Your task to perform on an android device: turn off location Image 0: 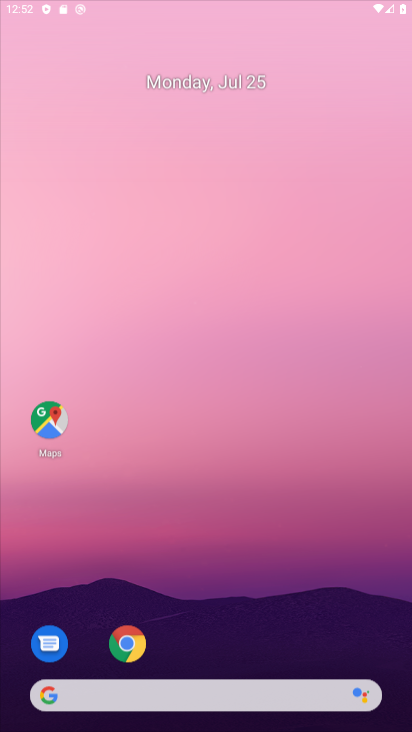
Step 0: drag from (218, 91) to (167, 2)
Your task to perform on an android device: turn off location Image 1: 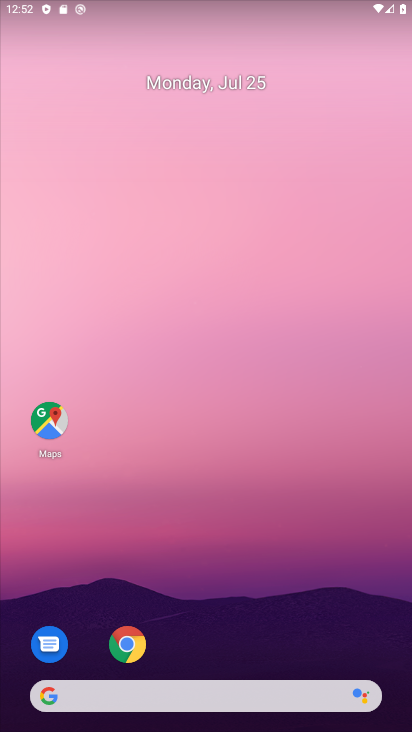
Step 1: drag from (283, 617) to (232, 16)
Your task to perform on an android device: turn off location Image 2: 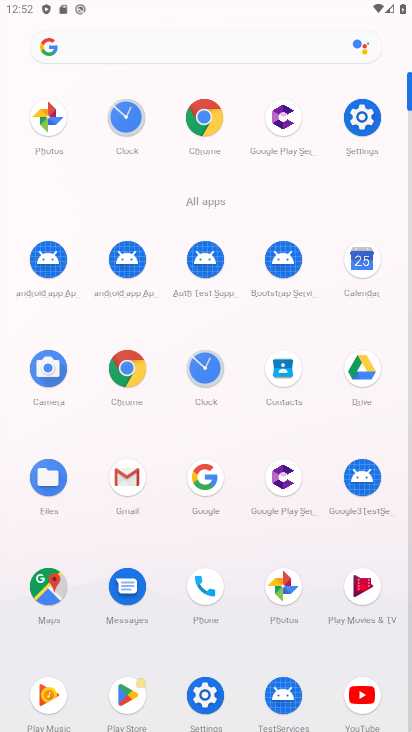
Step 2: click (358, 112)
Your task to perform on an android device: turn off location Image 3: 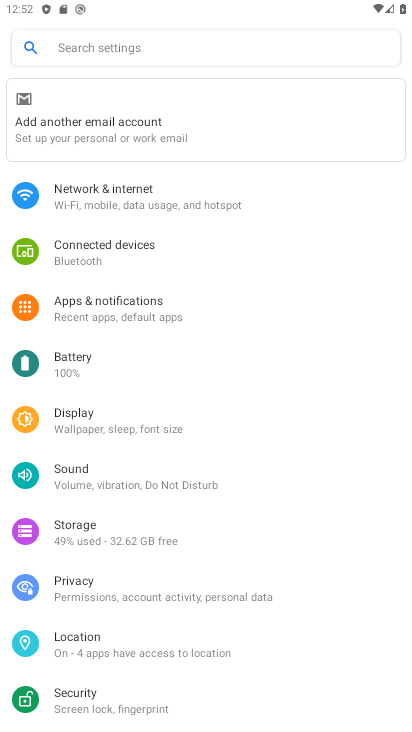
Step 3: click (110, 644)
Your task to perform on an android device: turn off location Image 4: 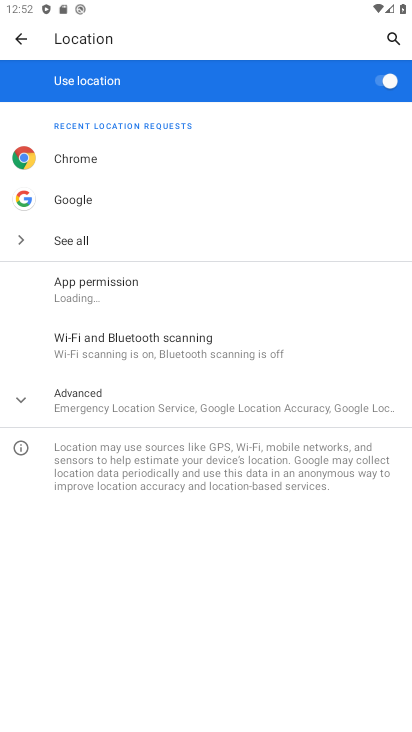
Step 4: click (378, 70)
Your task to perform on an android device: turn off location Image 5: 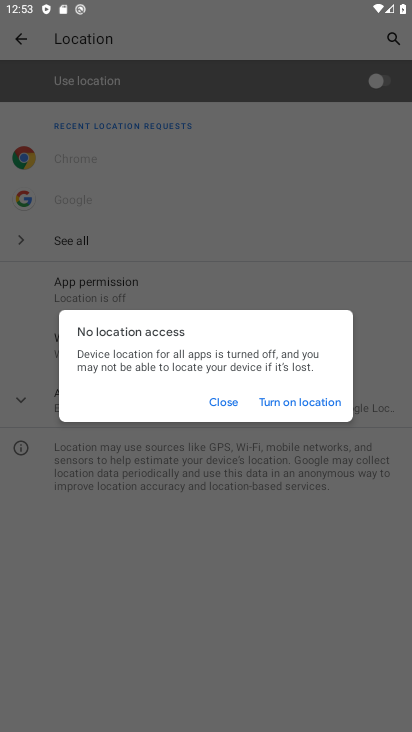
Step 5: task complete